Your task to perform on an android device: Open Google Chrome and click the shortcut for Amazon.com Image 0: 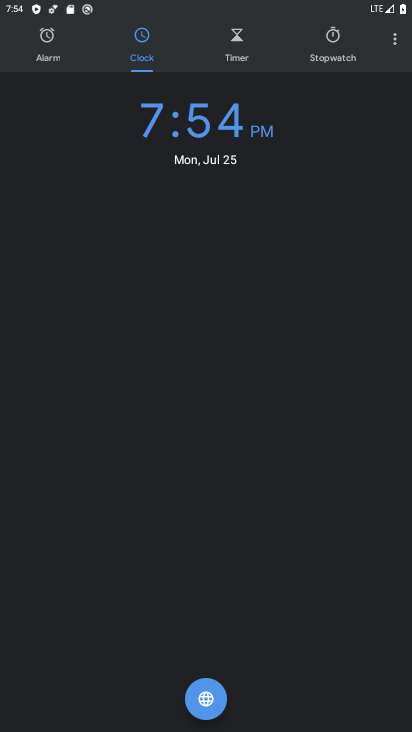
Step 0: press home button
Your task to perform on an android device: Open Google Chrome and click the shortcut for Amazon.com Image 1: 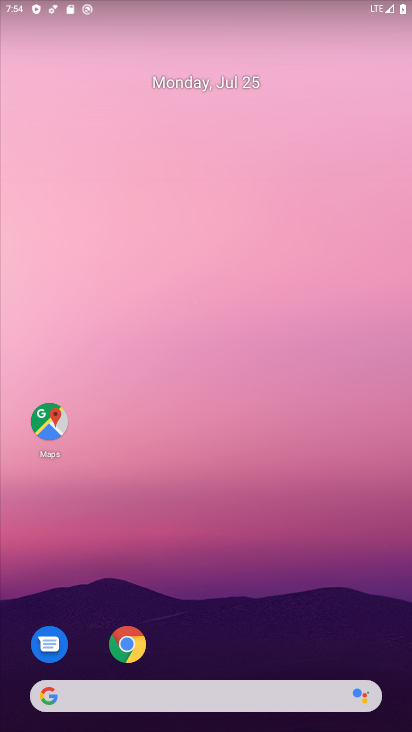
Step 1: click (129, 650)
Your task to perform on an android device: Open Google Chrome and click the shortcut for Amazon.com Image 2: 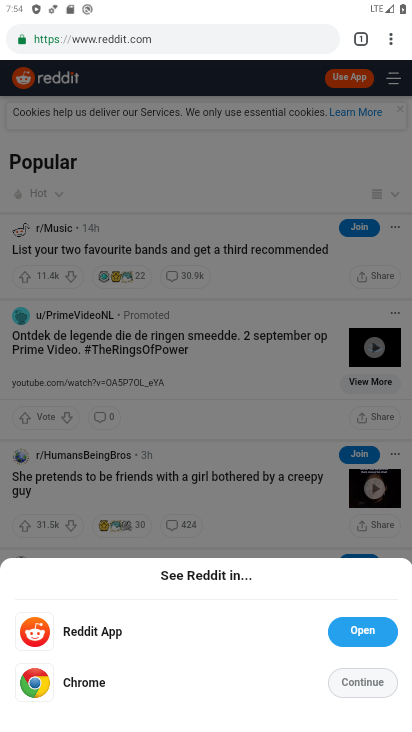
Step 2: click (365, 42)
Your task to perform on an android device: Open Google Chrome and click the shortcut for Amazon.com Image 3: 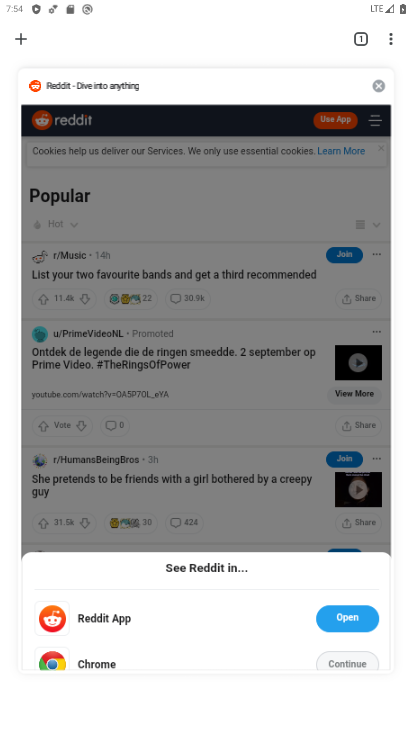
Step 3: click (21, 45)
Your task to perform on an android device: Open Google Chrome and click the shortcut for Amazon.com Image 4: 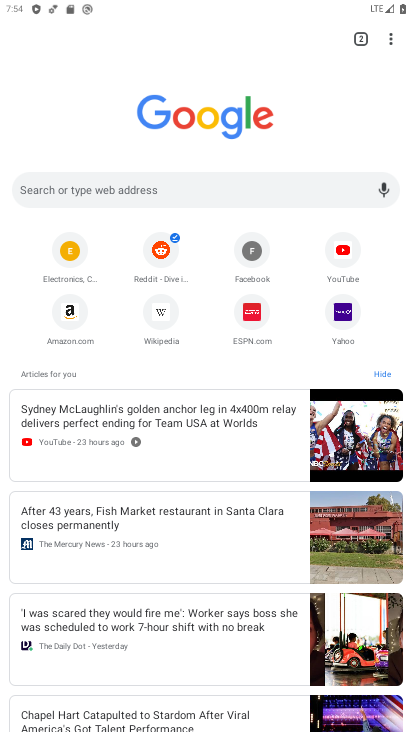
Step 4: click (69, 320)
Your task to perform on an android device: Open Google Chrome and click the shortcut for Amazon.com Image 5: 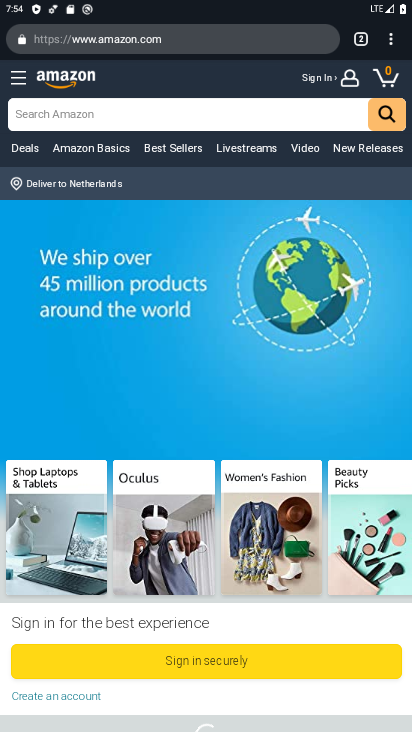
Step 5: task complete